Your task to perform on an android device: Turn off the flashlight Image 0: 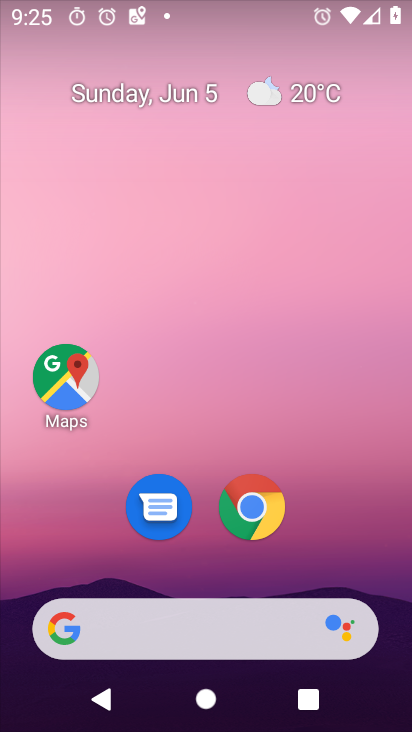
Step 0: drag from (346, 528) to (188, 41)
Your task to perform on an android device: Turn off the flashlight Image 1: 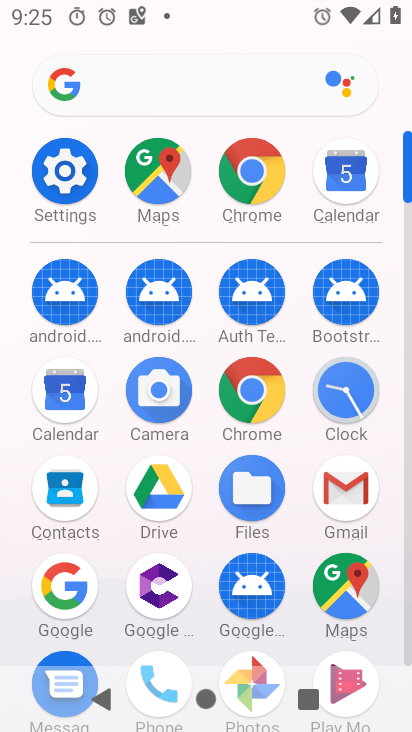
Step 1: drag from (7, 565) to (1, 252)
Your task to perform on an android device: Turn off the flashlight Image 2: 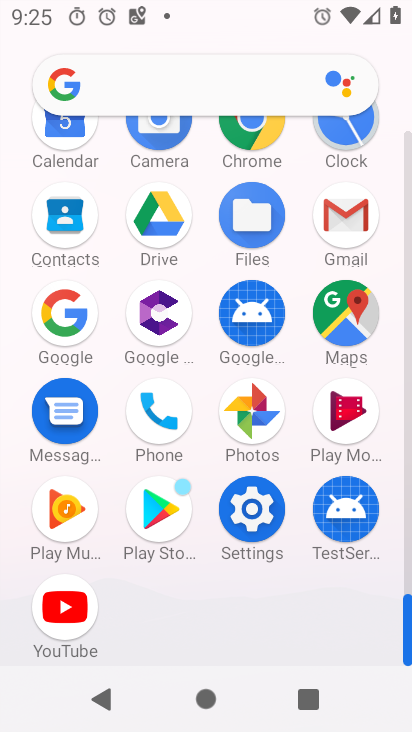
Step 2: click (250, 507)
Your task to perform on an android device: Turn off the flashlight Image 3: 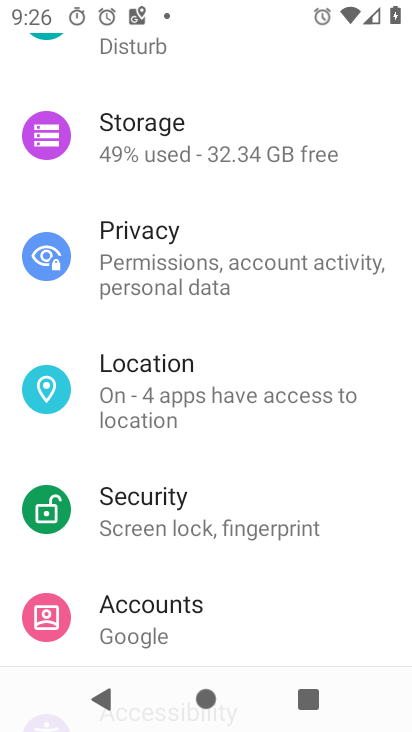
Step 3: drag from (245, 162) to (253, 593)
Your task to perform on an android device: Turn off the flashlight Image 4: 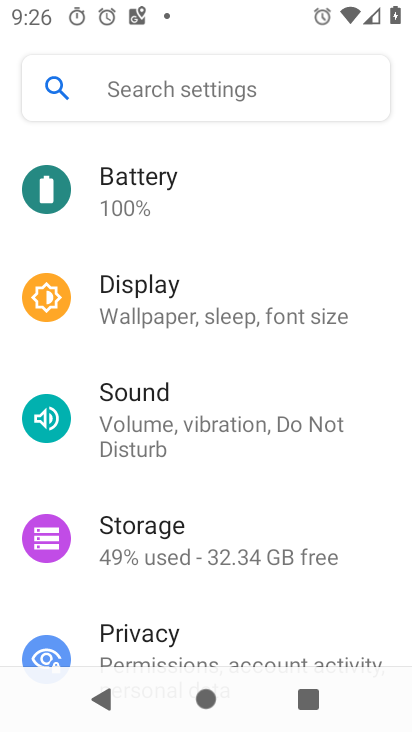
Step 4: drag from (215, 187) to (219, 545)
Your task to perform on an android device: Turn off the flashlight Image 5: 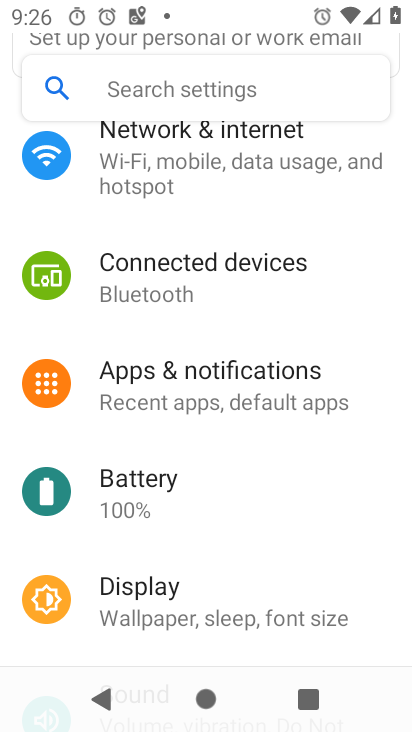
Step 5: drag from (262, 187) to (274, 551)
Your task to perform on an android device: Turn off the flashlight Image 6: 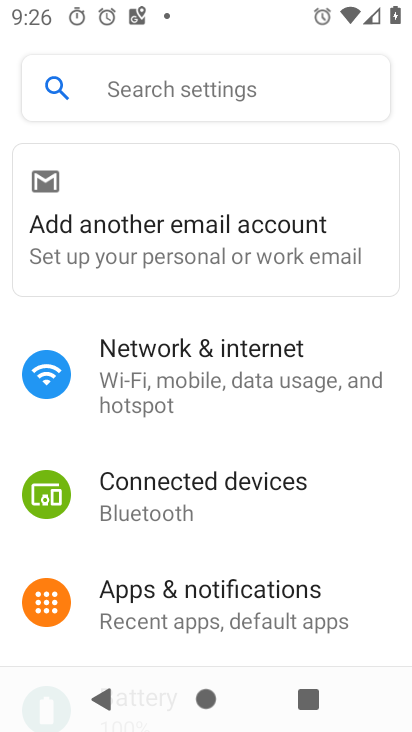
Step 6: click (208, 259)
Your task to perform on an android device: Turn off the flashlight Image 7: 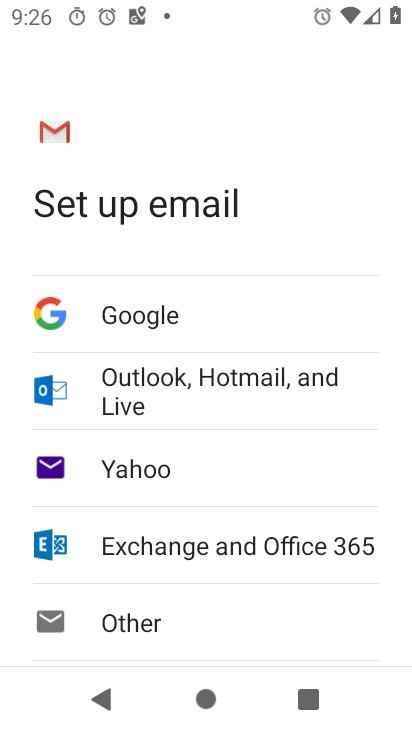
Step 7: press back button
Your task to perform on an android device: Turn off the flashlight Image 8: 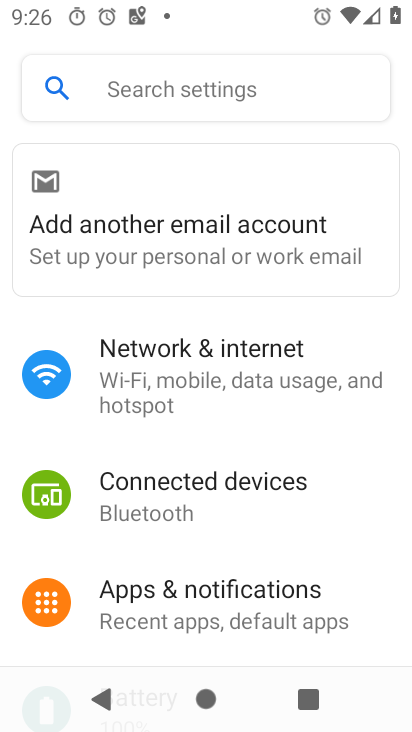
Step 8: click (237, 374)
Your task to perform on an android device: Turn off the flashlight Image 9: 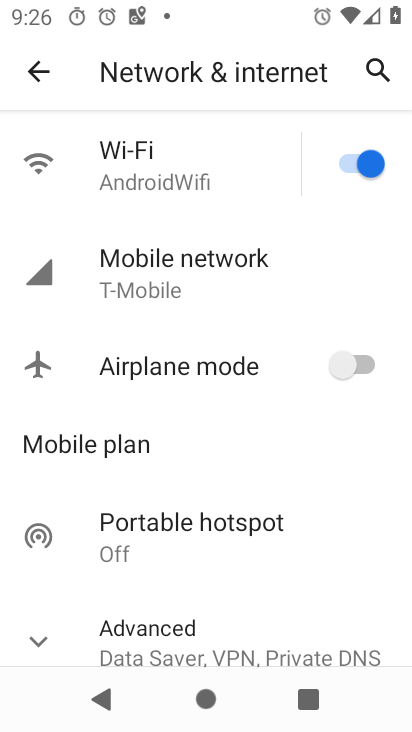
Step 9: click (43, 637)
Your task to perform on an android device: Turn off the flashlight Image 10: 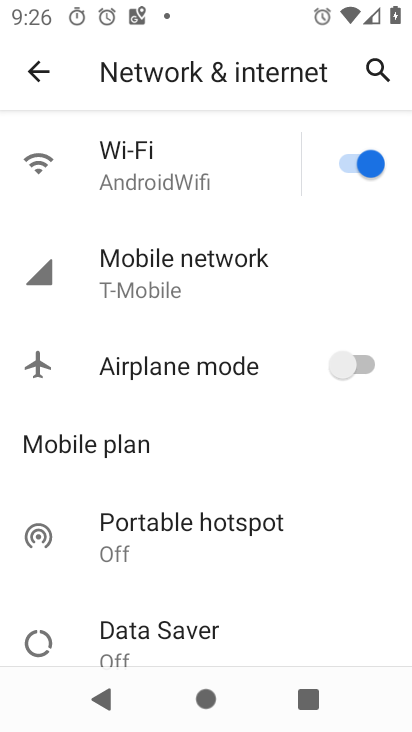
Step 10: task complete